Your task to perform on an android device: Go to CNN.com Image 0: 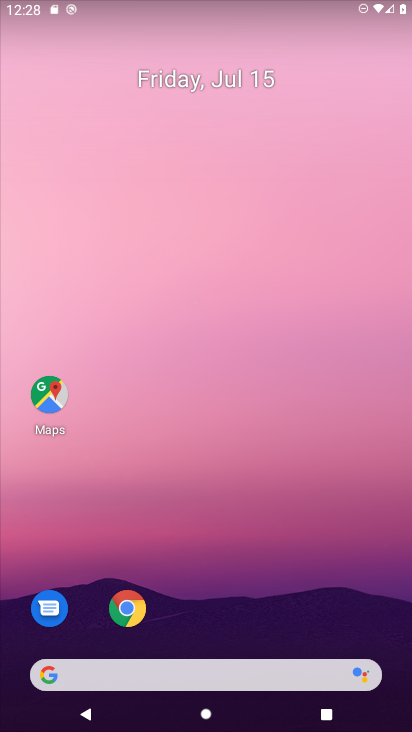
Step 0: drag from (282, 658) to (315, 151)
Your task to perform on an android device: Go to CNN.com Image 1: 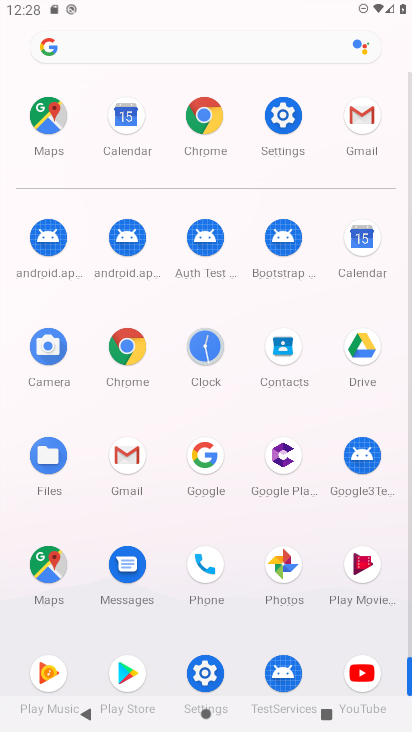
Step 1: click (134, 334)
Your task to perform on an android device: Go to CNN.com Image 2: 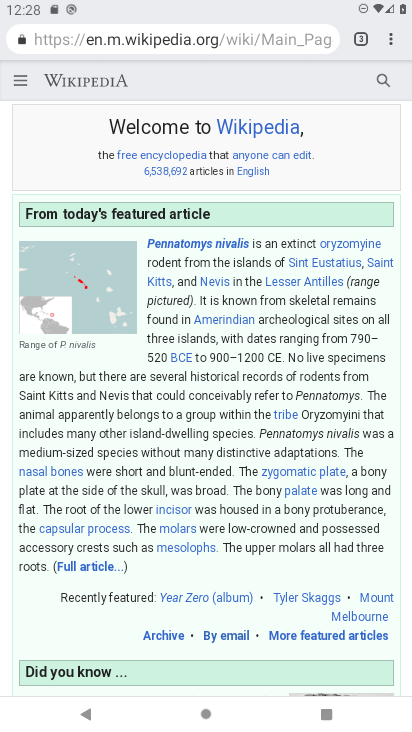
Step 2: click (168, 36)
Your task to perform on an android device: Go to CNN.com Image 3: 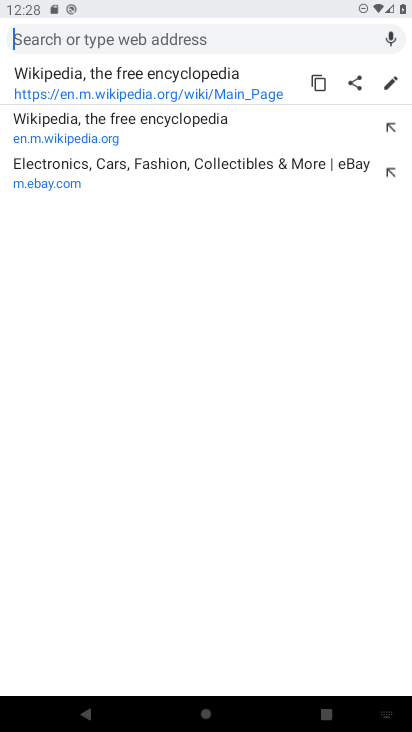
Step 3: type "cnn.com"
Your task to perform on an android device: Go to CNN.com Image 4: 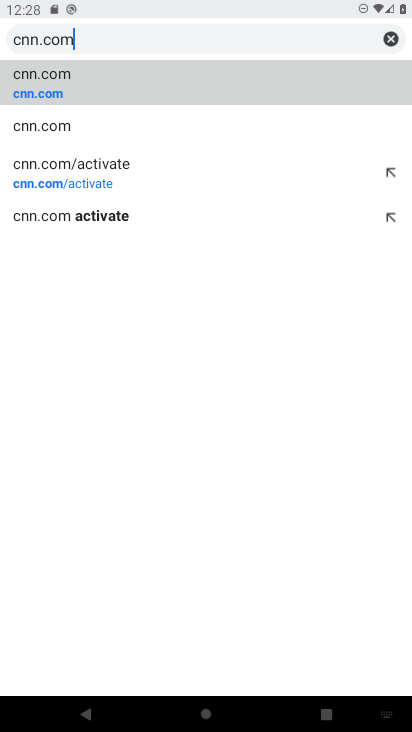
Step 4: click (56, 90)
Your task to perform on an android device: Go to CNN.com Image 5: 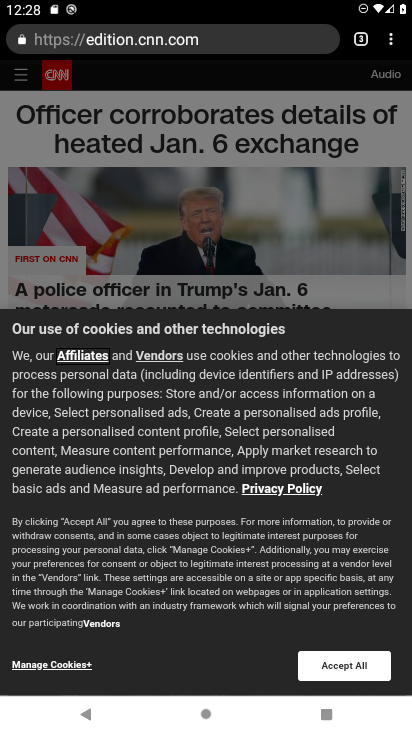
Step 5: task complete